Your task to perform on an android device: Open Wikipedia Image 0: 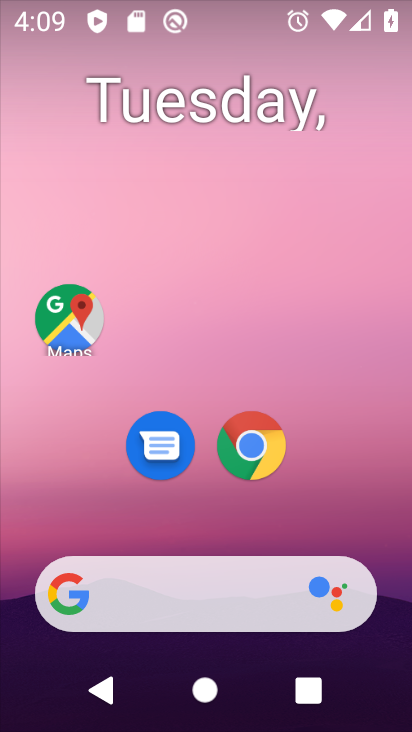
Step 0: click (247, 433)
Your task to perform on an android device: Open Wikipedia Image 1: 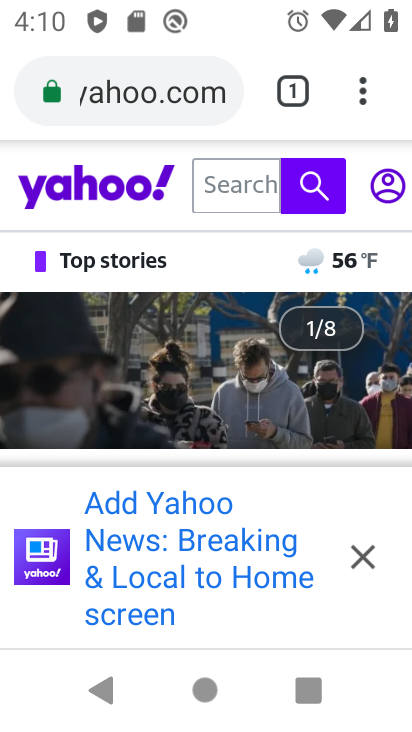
Step 1: click (296, 78)
Your task to perform on an android device: Open Wikipedia Image 2: 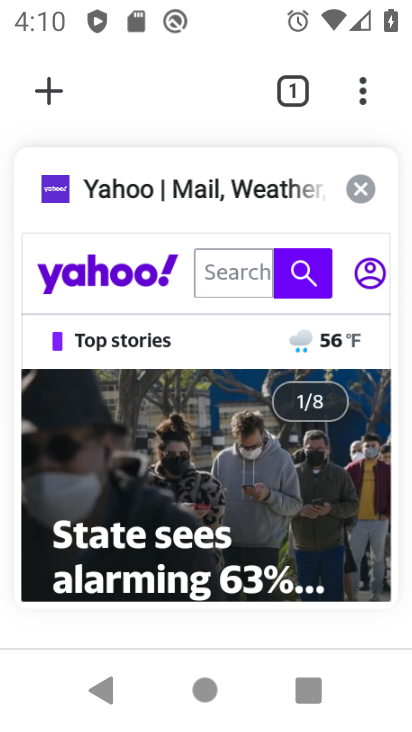
Step 2: click (360, 197)
Your task to perform on an android device: Open Wikipedia Image 3: 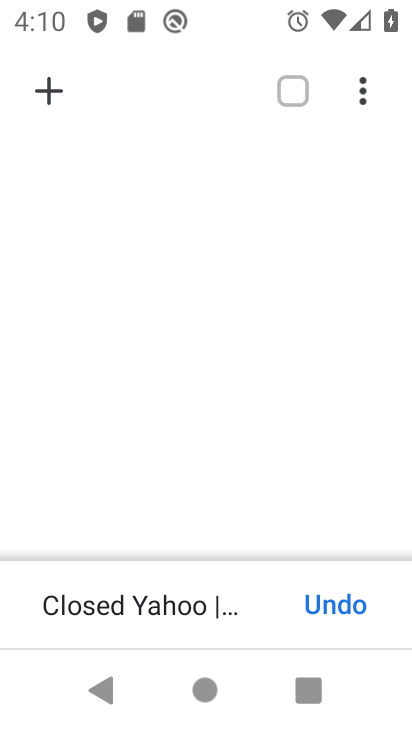
Step 3: click (58, 93)
Your task to perform on an android device: Open Wikipedia Image 4: 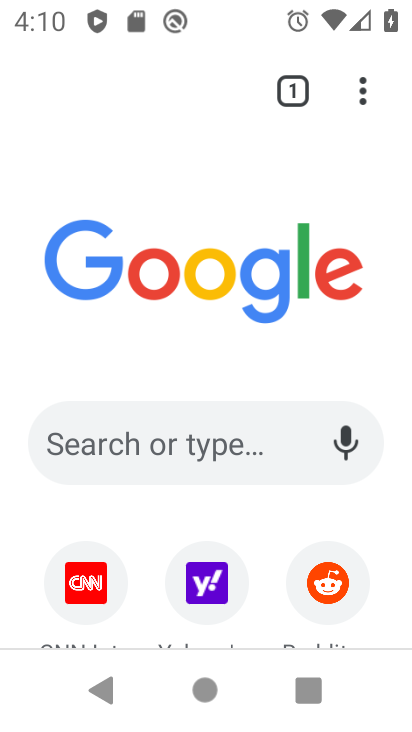
Step 4: drag from (271, 511) to (320, 113)
Your task to perform on an android device: Open Wikipedia Image 5: 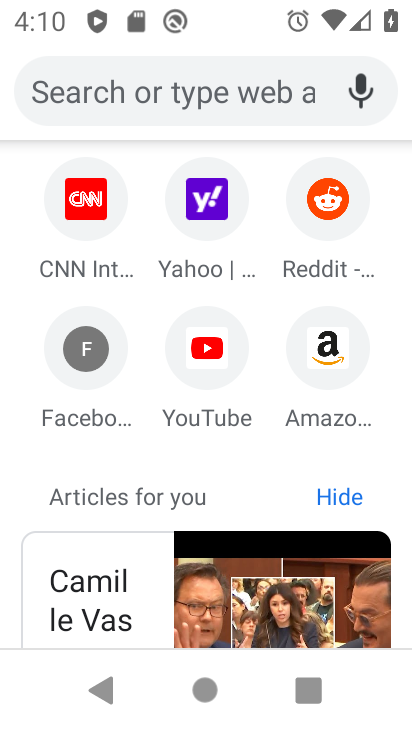
Step 5: click (170, 108)
Your task to perform on an android device: Open Wikipedia Image 6: 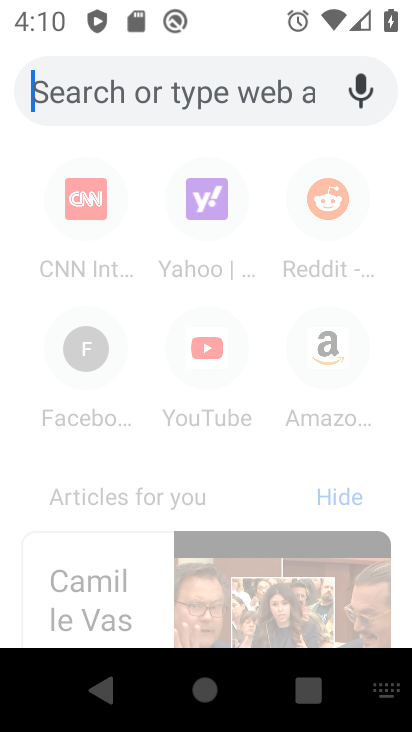
Step 6: type "wiki"
Your task to perform on an android device: Open Wikipedia Image 7: 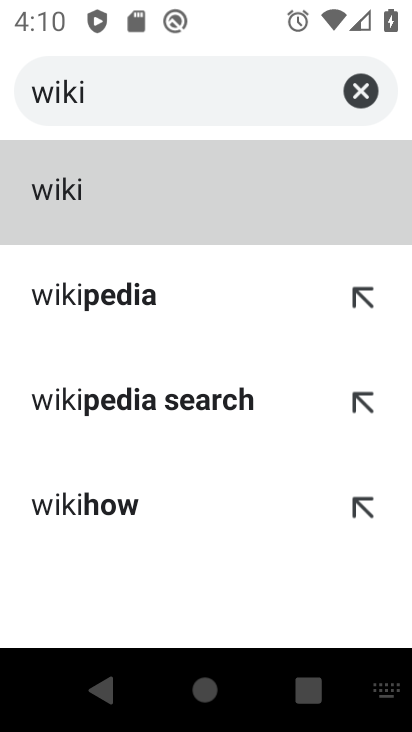
Step 7: click (127, 288)
Your task to perform on an android device: Open Wikipedia Image 8: 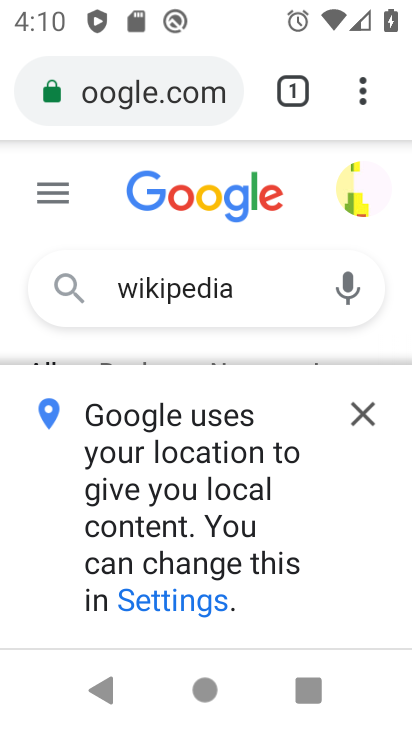
Step 8: drag from (200, 423) to (252, 234)
Your task to perform on an android device: Open Wikipedia Image 9: 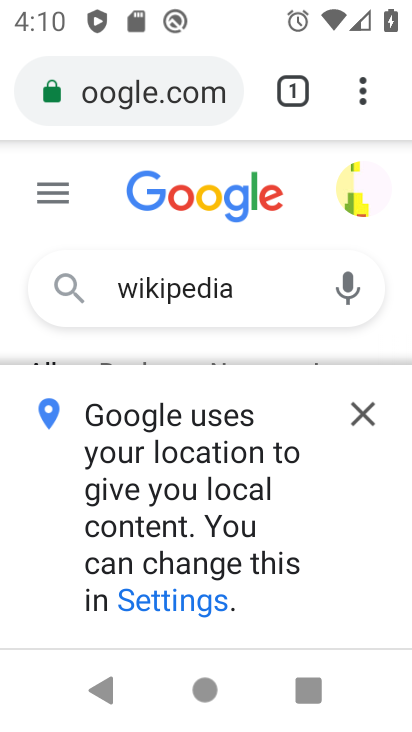
Step 9: click (367, 409)
Your task to perform on an android device: Open Wikipedia Image 10: 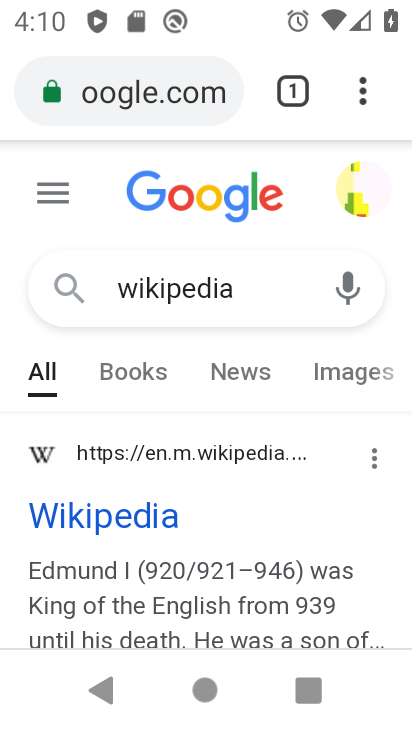
Step 10: click (115, 503)
Your task to perform on an android device: Open Wikipedia Image 11: 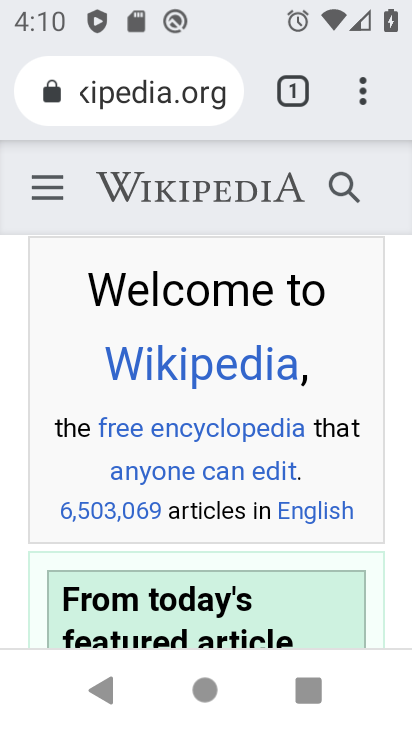
Step 11: task complete